Your task to perform on an android device: turn on sleep mode Image 0: 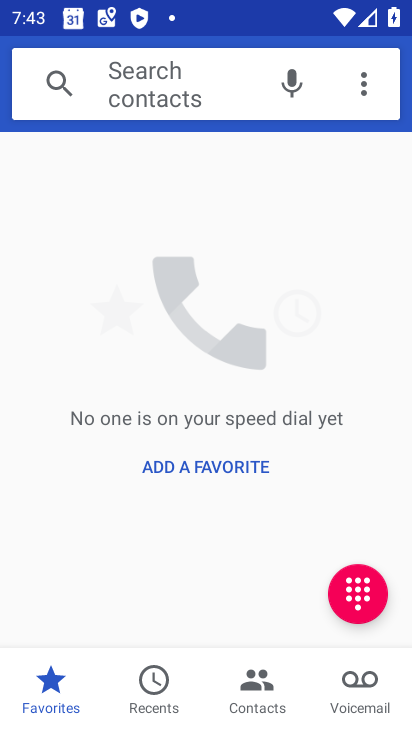
Step 0: press home button
Your task to perform on an android device: turn on sleep mode Image 1: 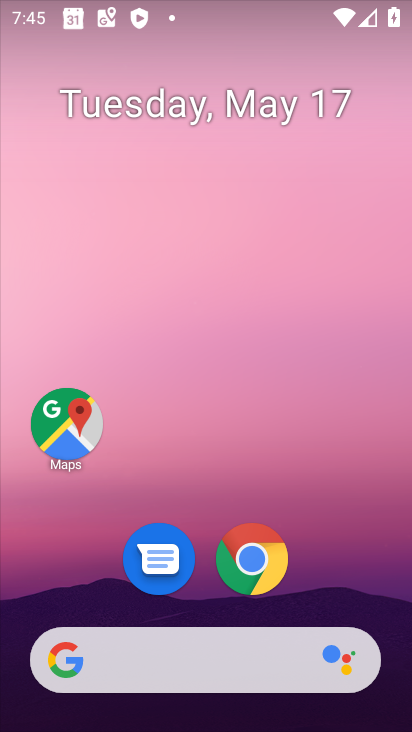
Step 1: drag from (157, 580) to (248, 8)
Your task to perform on an android device: turn on sleep mode Image 2: 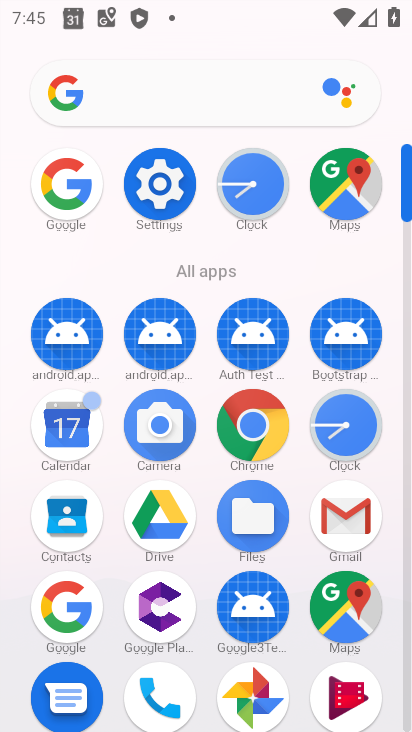
Step 2: click (150, 191)
Your task to perform on an android device: turn on sleep mode Image 3: 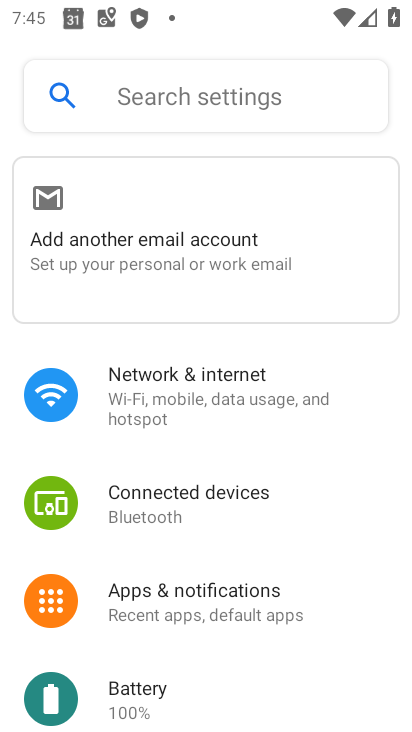
Step 3: drag from (221, 651) to (201, 16)
Your task to perform on an android device: turn on sleep mode Image 4: 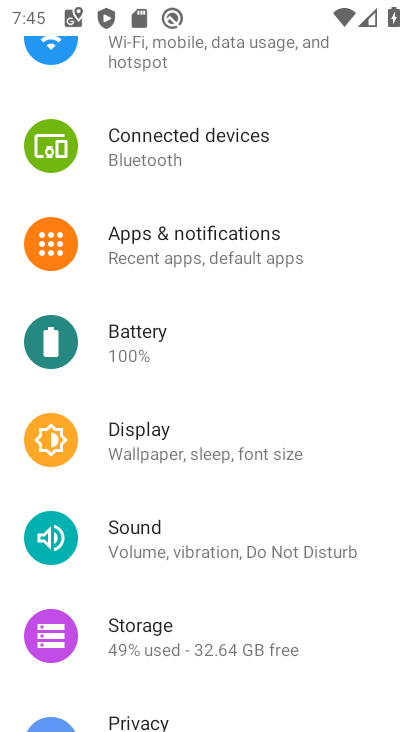
Step 4: click (195, 452)
Your task to perform on an android device: turn on sleep mode Image 5: 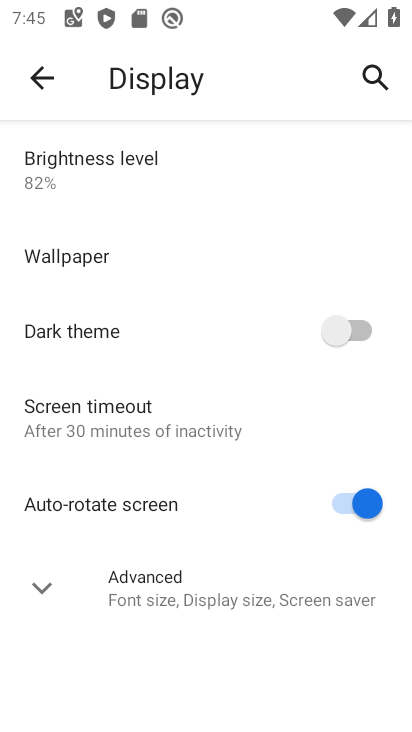
Step 5: task complete